Your task to perform on an android device: Open accessibility settings Image 0: 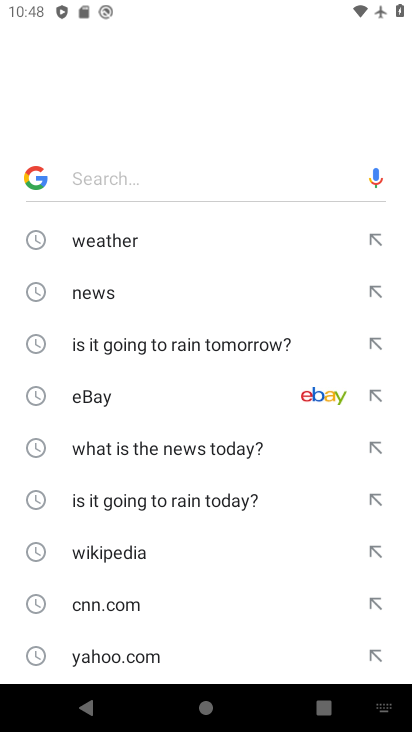
Step 0: press home button
Your task to perform on an android device: Open accessibility settings Image 1: 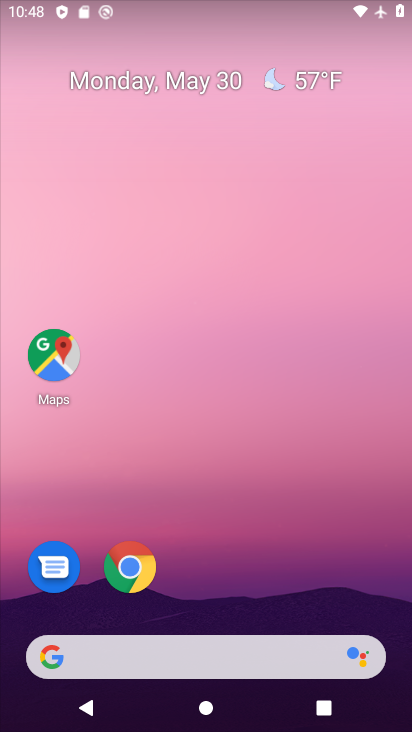
Step 1: drag from (207, 594) to (215, 181)
Your task to perform on an android device: Open accessibility settings Image 2: 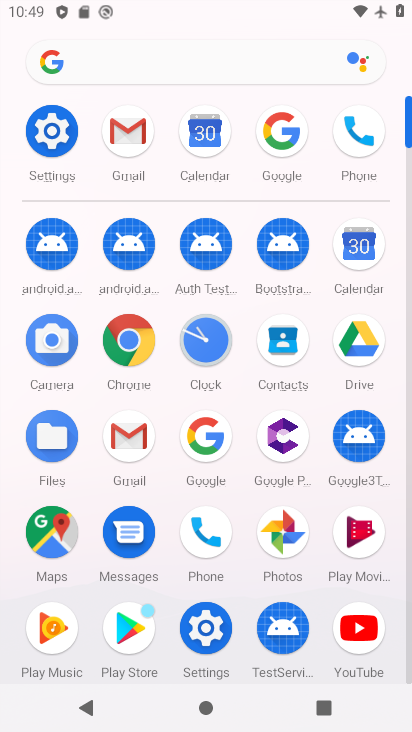
Step 2: click (49, 155)
Your task to perform on an android device: Open accessibility settings Image 3: 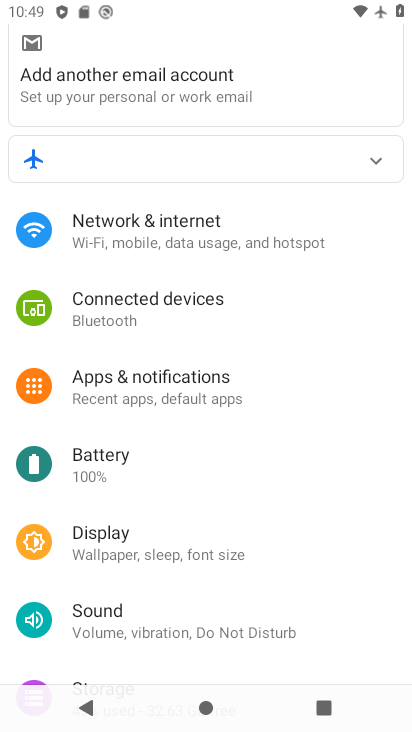
Step 3: drag from (228, 592) to (203, 323)
Your task to perform on an android device: Open accessibility settings Image 4: 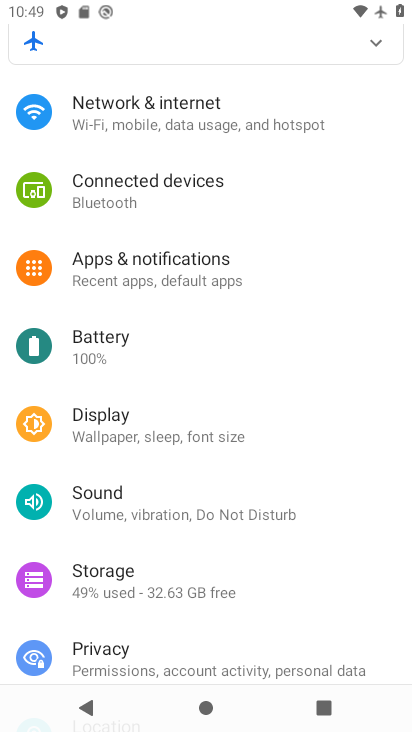
Step 4: drag from (196, 553) to (164, 291)
Your task to perform on an android device: Open accessibility settings Image 5: 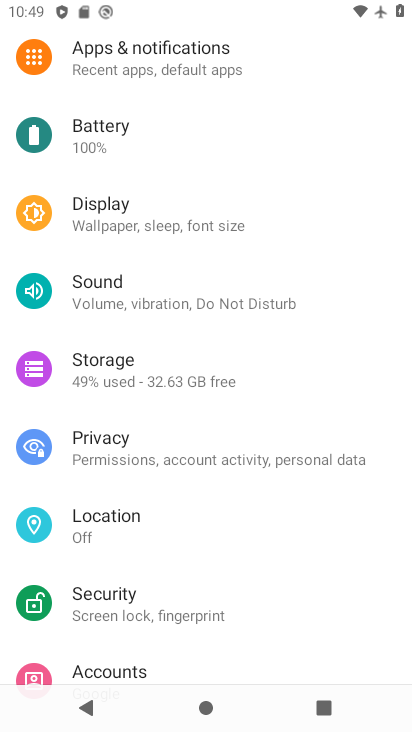
Step 5: drag from (184, 490) to (175, 266)
Your task to perform on an android device: Open accessibility settings Image 6: 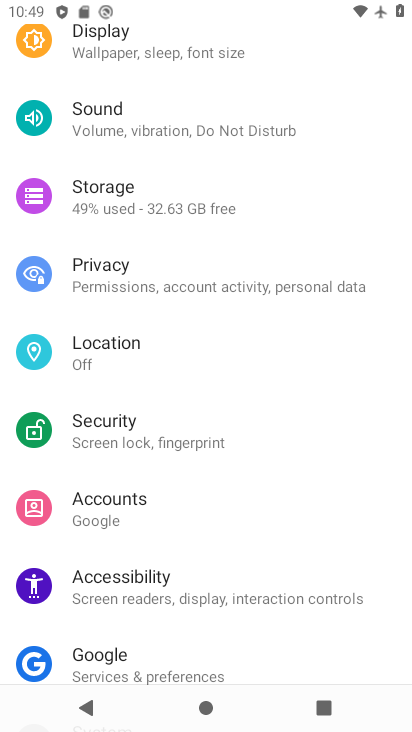
Step 6: click (183, 580)
Your task to perform on an android device: Open accessibility settings Image 7: 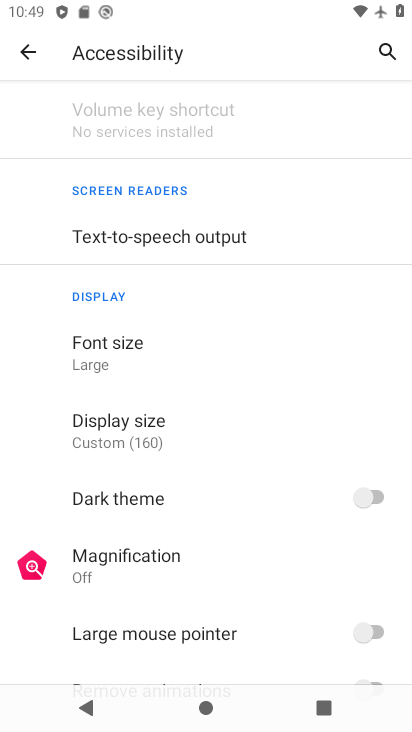
Step 7: task complete